Your task to perform on an android device: move an email to a new category in the gmail app Image 0: 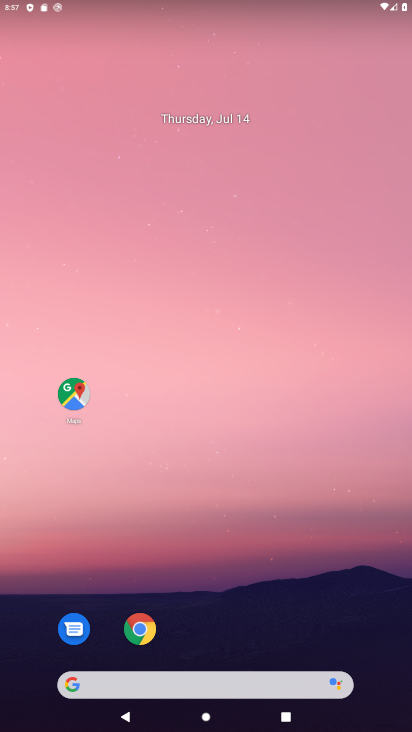
Step 0: drag from (231, 619) to (220, 238)
Your task to perform on an android device: move an email to a new category in the gmail app Image 1: 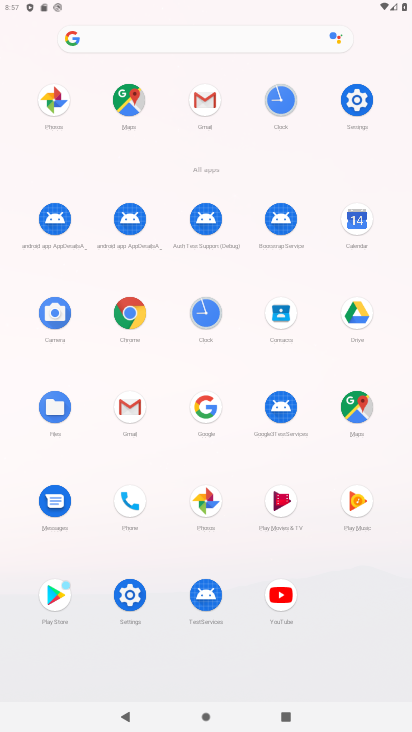
Step 1: click (191, 91)
Your task to perform on an android device: move an email to a new category in the gmail app Image 2: 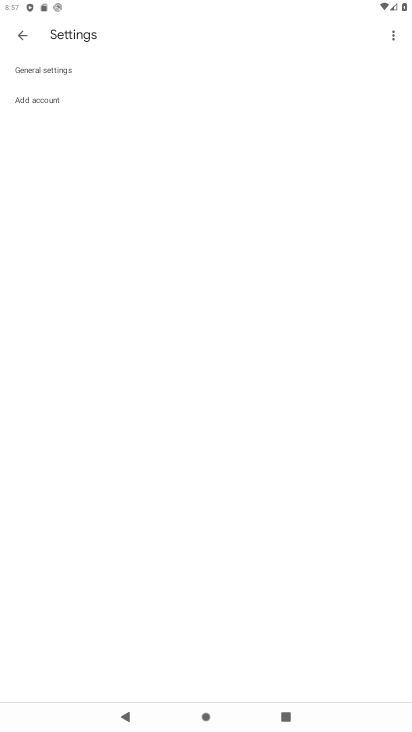
Step 2: click (20, 36)
Your task to perform on an android device: move an email to a new category in the gmail app Image 3: 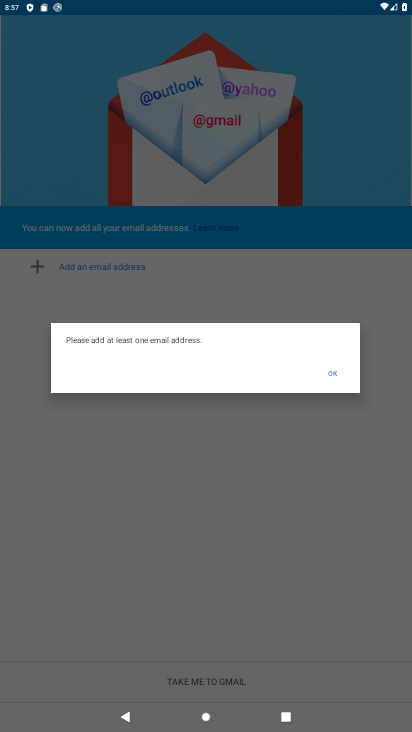
Step 3: task complete